Your task to perform on an android device: Open display settings Image 0: 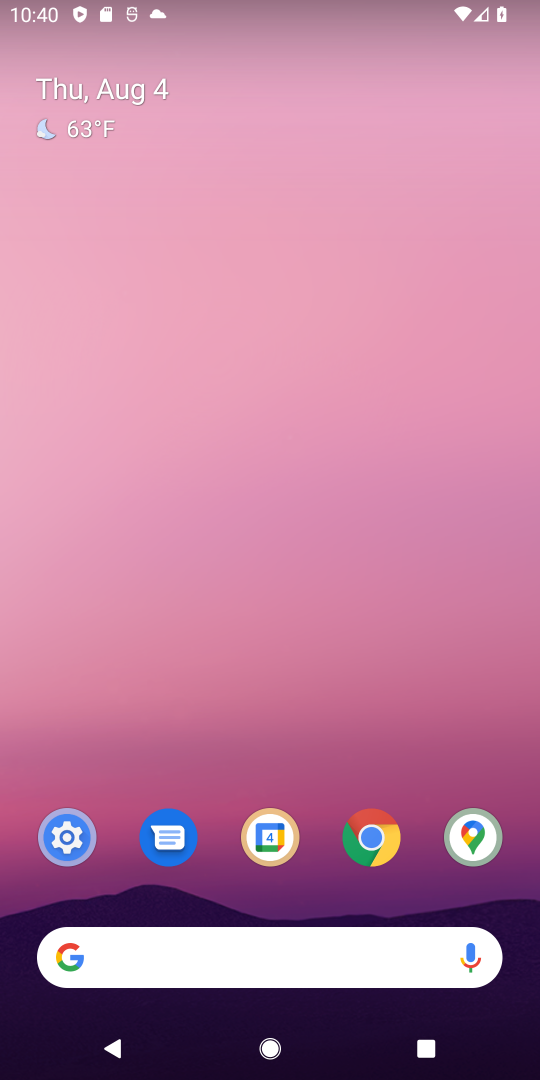
Step 0: press home button
Your task to perform on an android device: Open display settings Image 1: 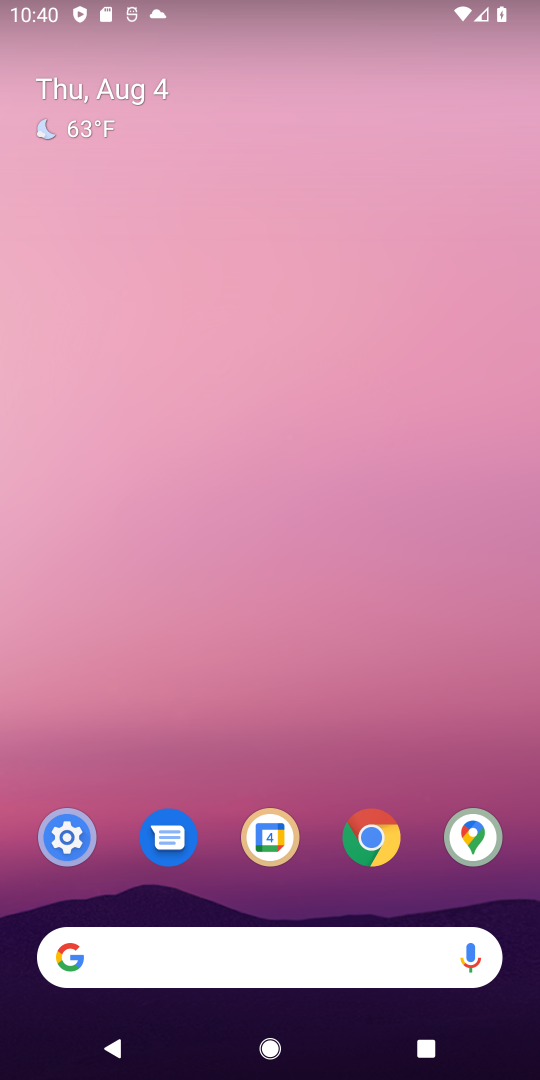
Step 1: drag from (326, 886) to (378, 112)
Your task to perform on an android device: Open display settings Image 2: 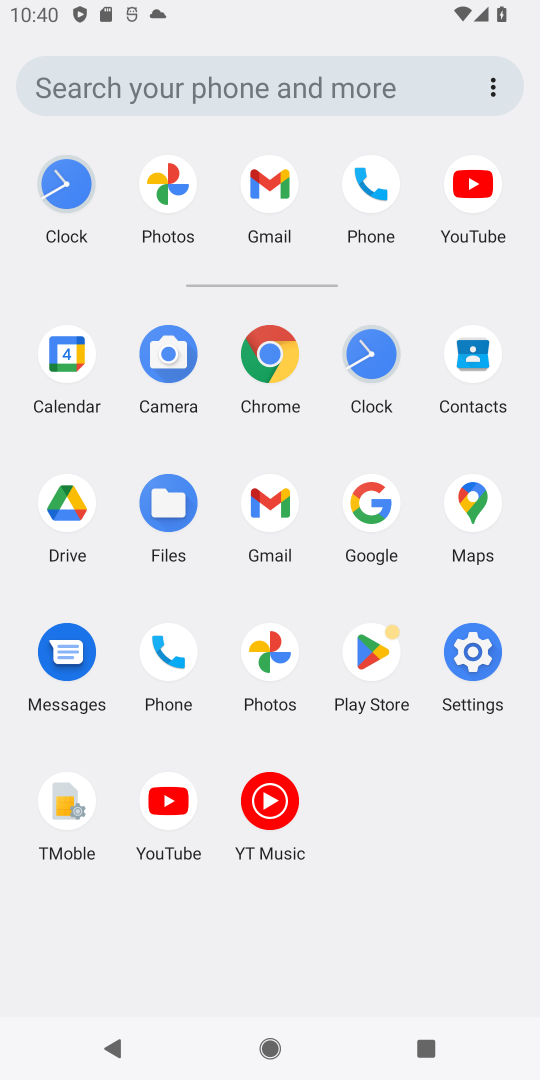
Step 2: click (468, 650)
Your task to perform on an android device: Open display settings Image 3: 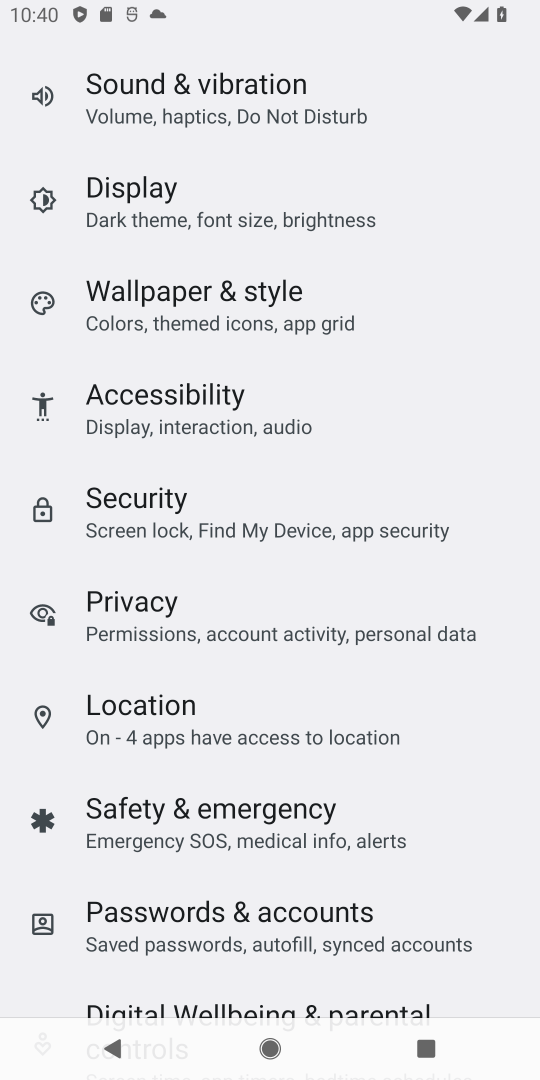
Step 3: click (184, 189)
Your task to perform on an android device: Open display settings Image 4: 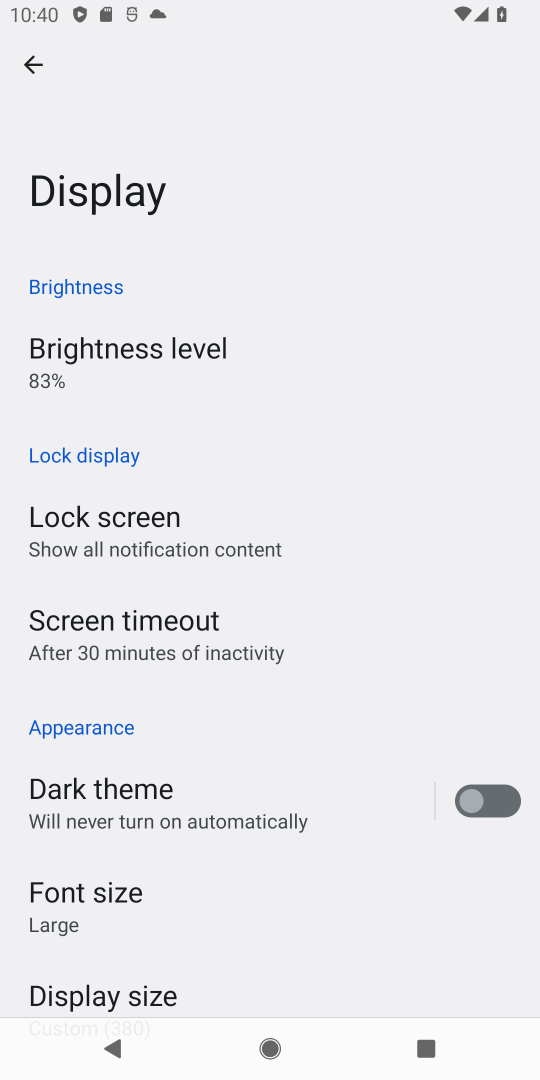
Step 4: task complete